Your task to perform on an android device: Go to settings Image 0: 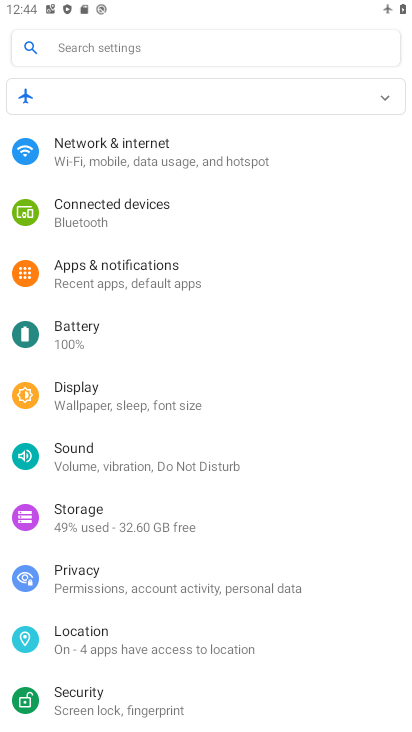
Step 0: drag from (176, 652) to (176, 286)
Your task to perform on an android device: Go to settings Image 1: 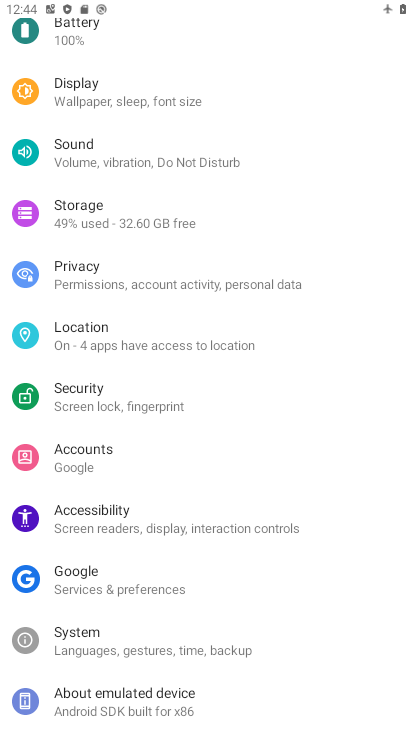
Step 1: task complete